Your task to perform on an android device: Go to CNN.com Image 0: 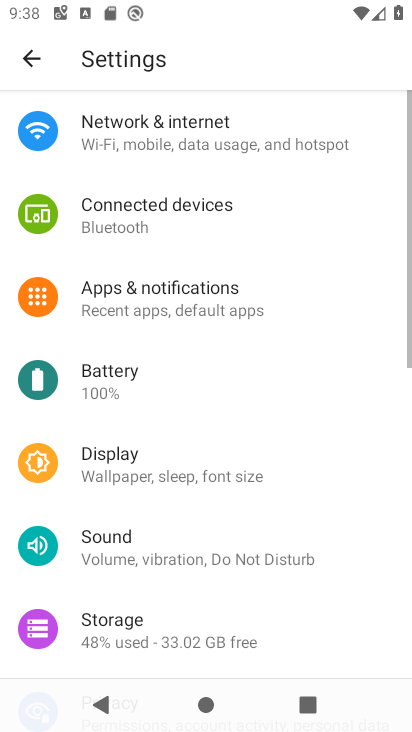
Step 0: press home button
Your task to perform on an android device: Go to CNN.com Image 1: 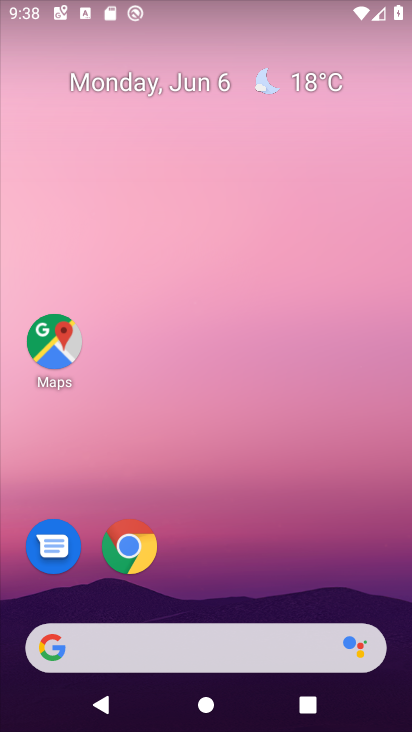
Step 1: click (130, 550)
Your task to perform on an android device: Go to CNN.com Image 2: 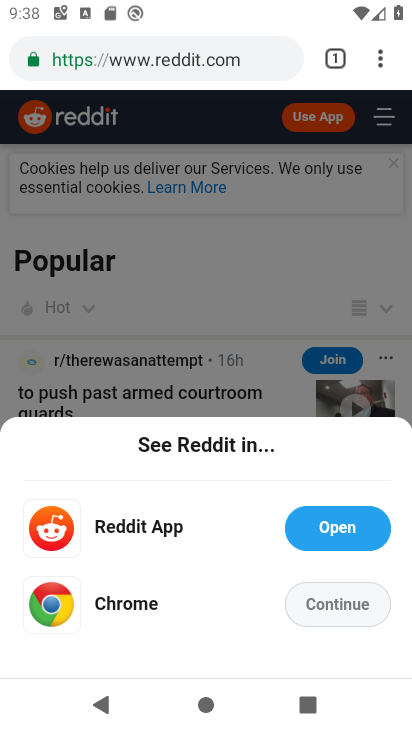
Step 2: click (257, 55)
Your task to perform on an android device: Go to CNN.com Image 3: 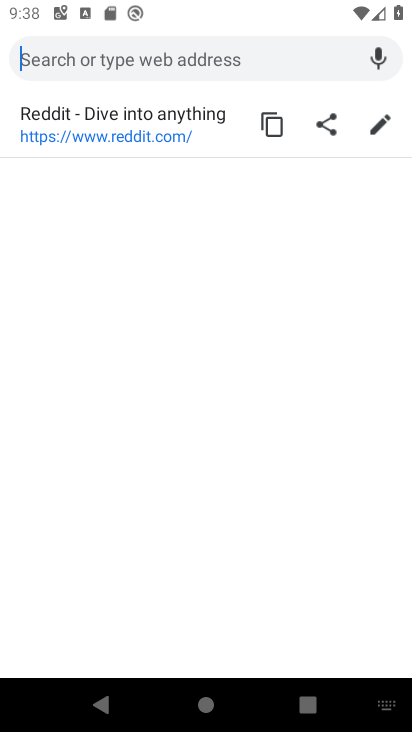
Step 3: type "cnn.com"
Your task to perform on an android device: Go to CNN.com Image 4: 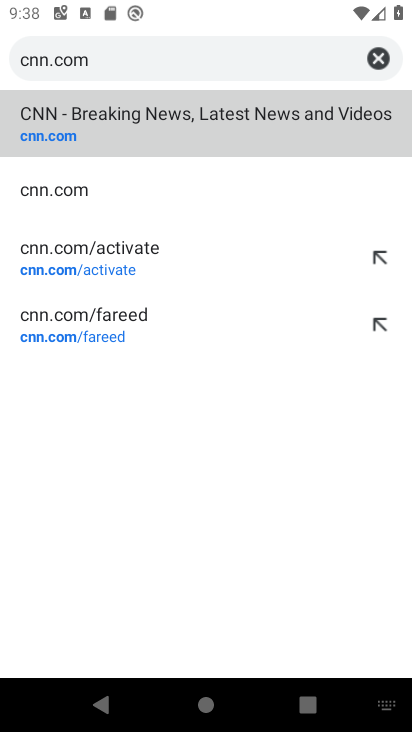
Step 4: click (74, 118)
Your task to perform on an android device: Go to CNN.com Image 5: 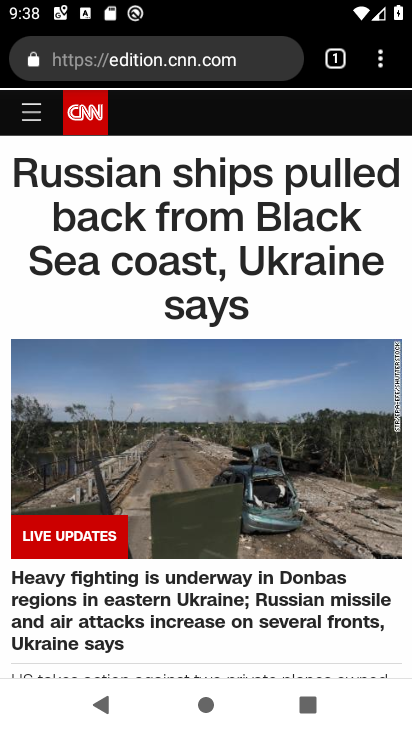
Step 5: task complete